Your task to perform on an android device: turn notification dots on Image 0: 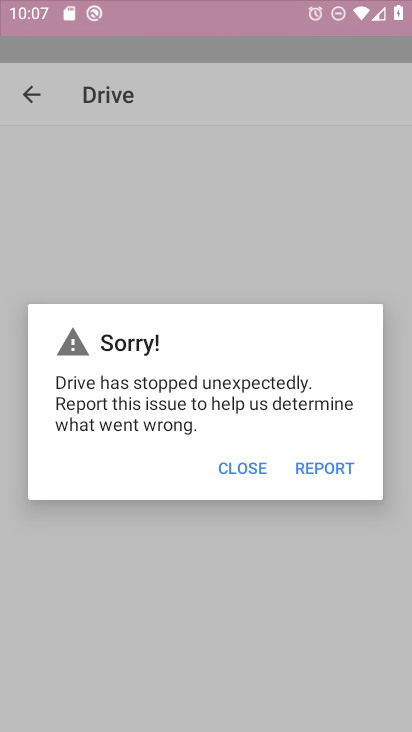
Step 0: drag from (384, 603) to (369, 40)
Your task to perform on an android device: turn notification dots on Image 1: 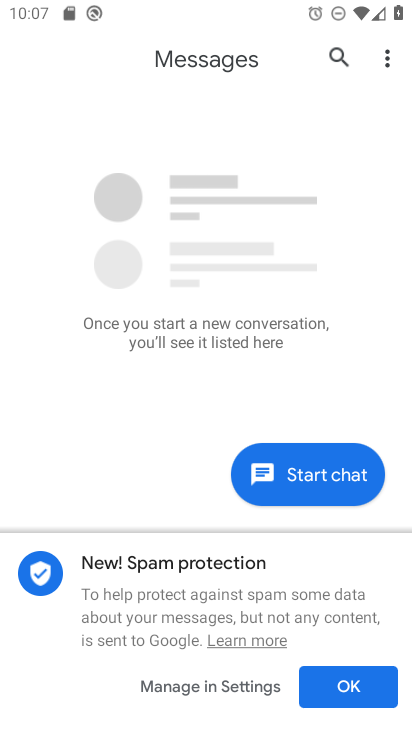
Step 1: press home button
Your task to perform on an android device: turn notification dots on Image 2: 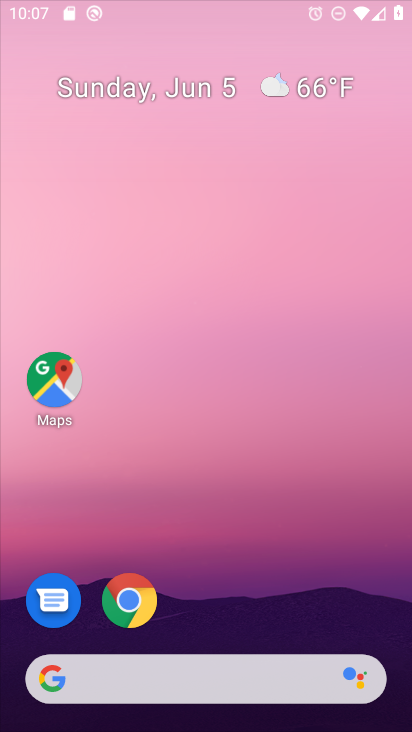
Step 2: drag from (389, 666) to (326, 79)
Your task to perform on an android device: turn notification dots on Image 3: 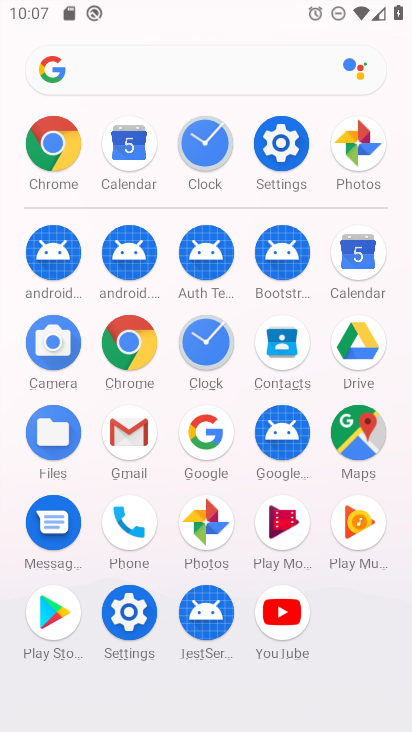
Step 3: click (287, 147)
Your task to perform on an android device: turn notification dots on Image 4: 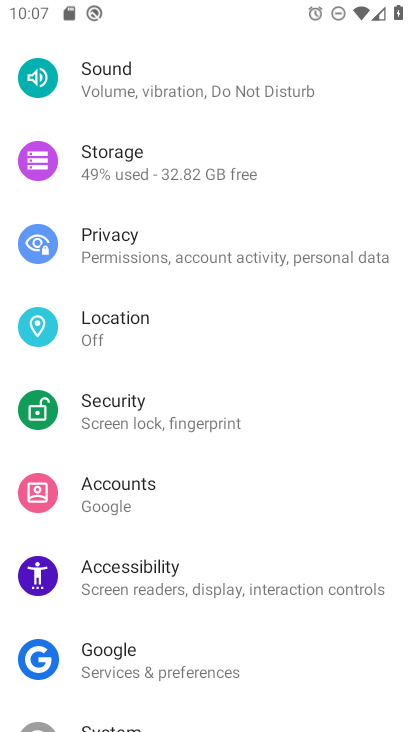
Step 4: drag from (287, 147) to (275, 562)
Your task to perform on an android device: turn notification dots on Image 5: 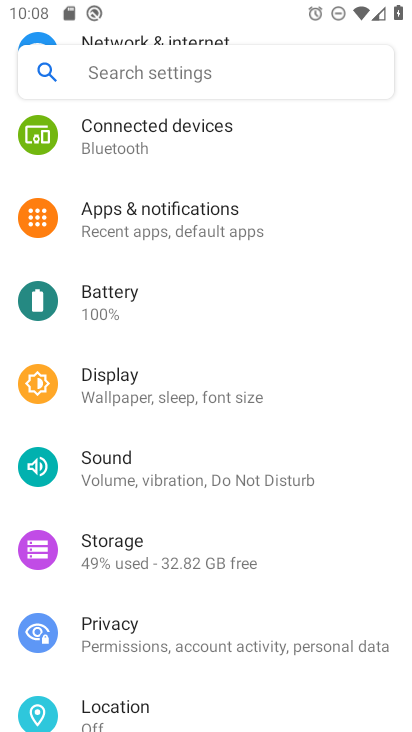
Step 5: click (208, 231)
Your task to perform on an android device: turn notification dots on Image 6: 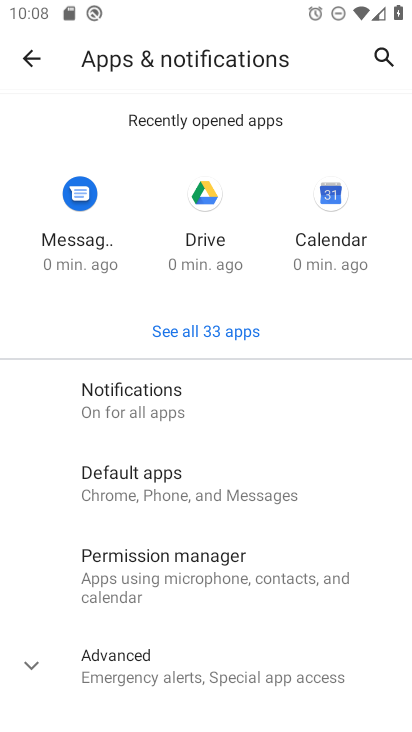
Step 6: click (189, 391)
Your task to perform on an android device: turn notification dots on Image 7: 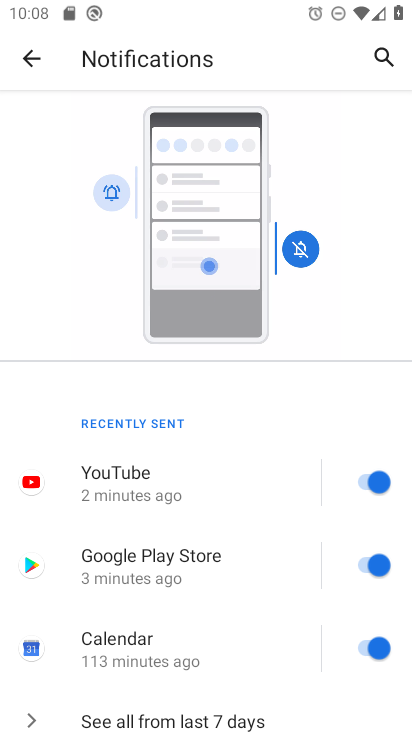
Step 7: drag from (192, 690) to (273, 182)
Your task to perform on an android device: turn notification dots on Image 8: 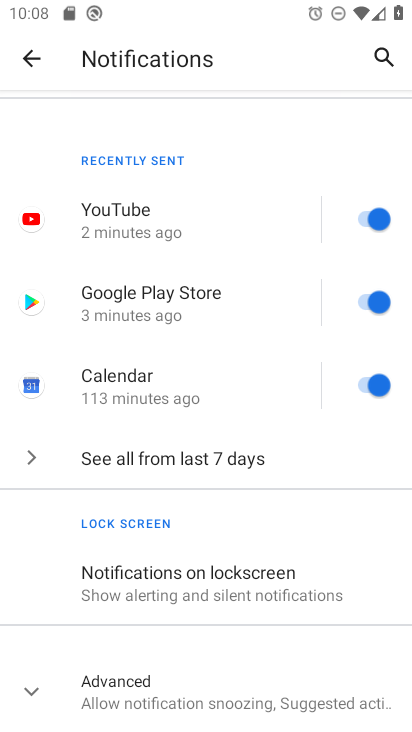
Step 8: click (160, 693)
Your task to perform on an android device: turn notification dots on Image 9: 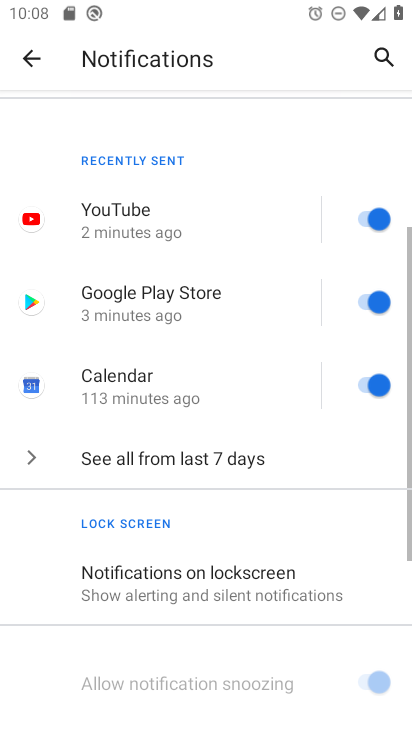
Step 9: task complete